Your task to perform on an android device: open sync settings in chrome Image 0: 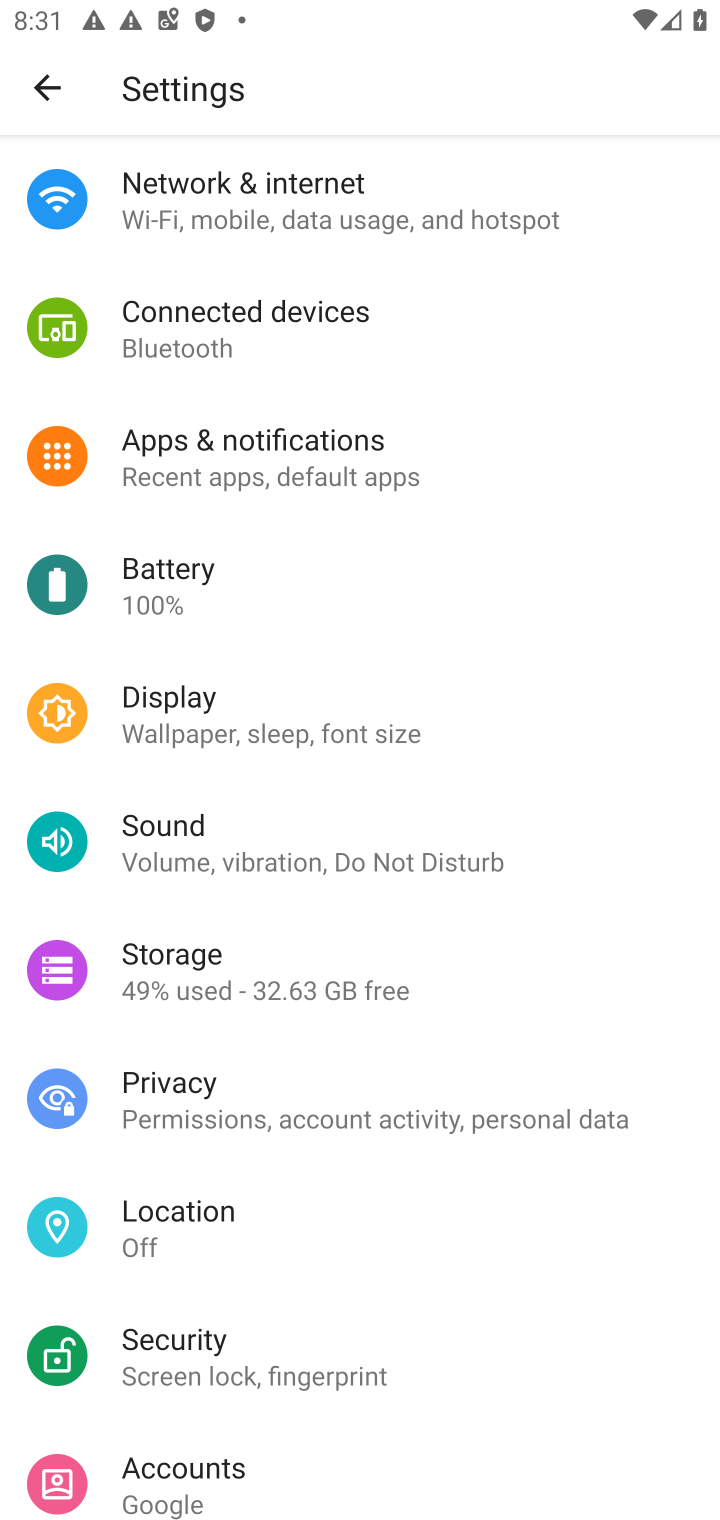
Step 0: press home button
Your task to perform on an android device: open sync settings in chrome Image 1: 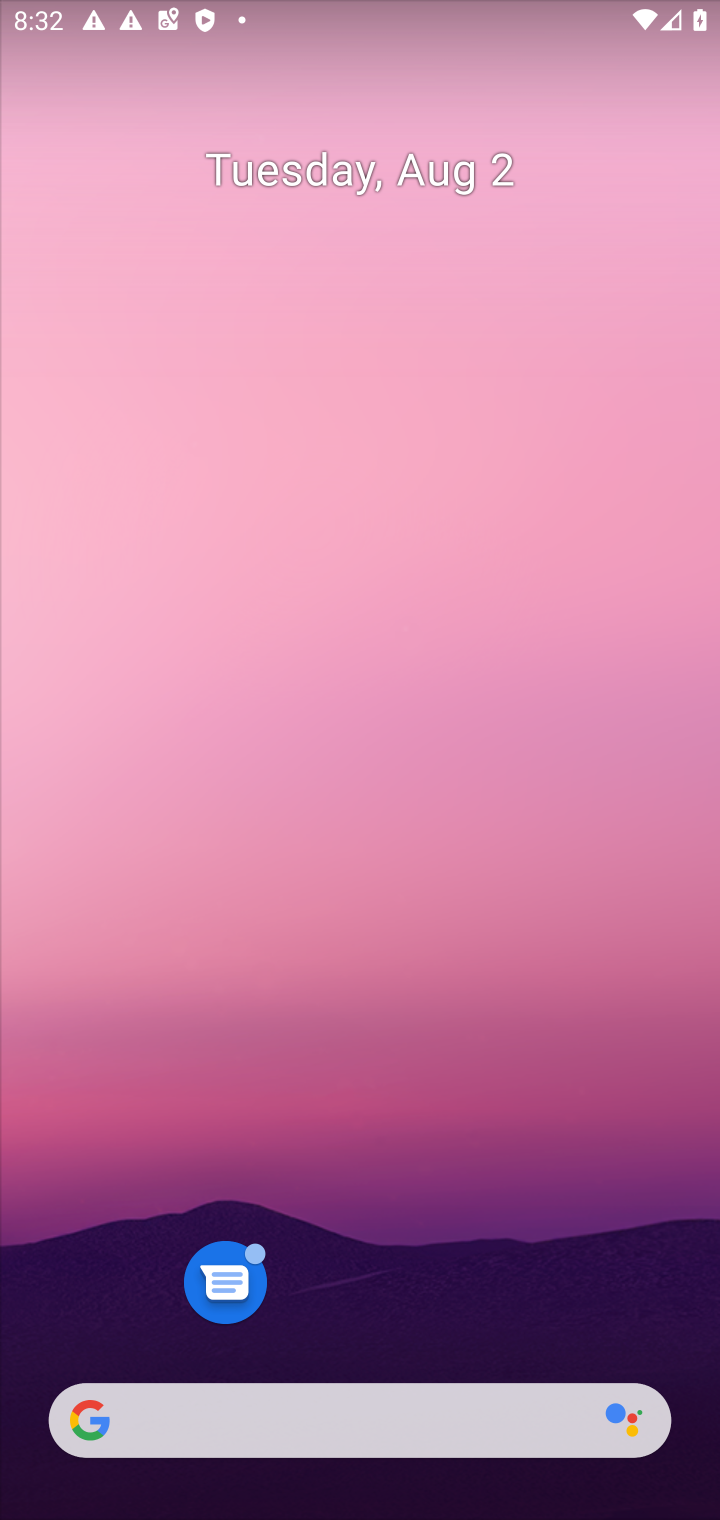
Step 1: drag from (418, 1315) to (412, 1)
Your task to perform on an android device: open sync settings in chrome Image 2: 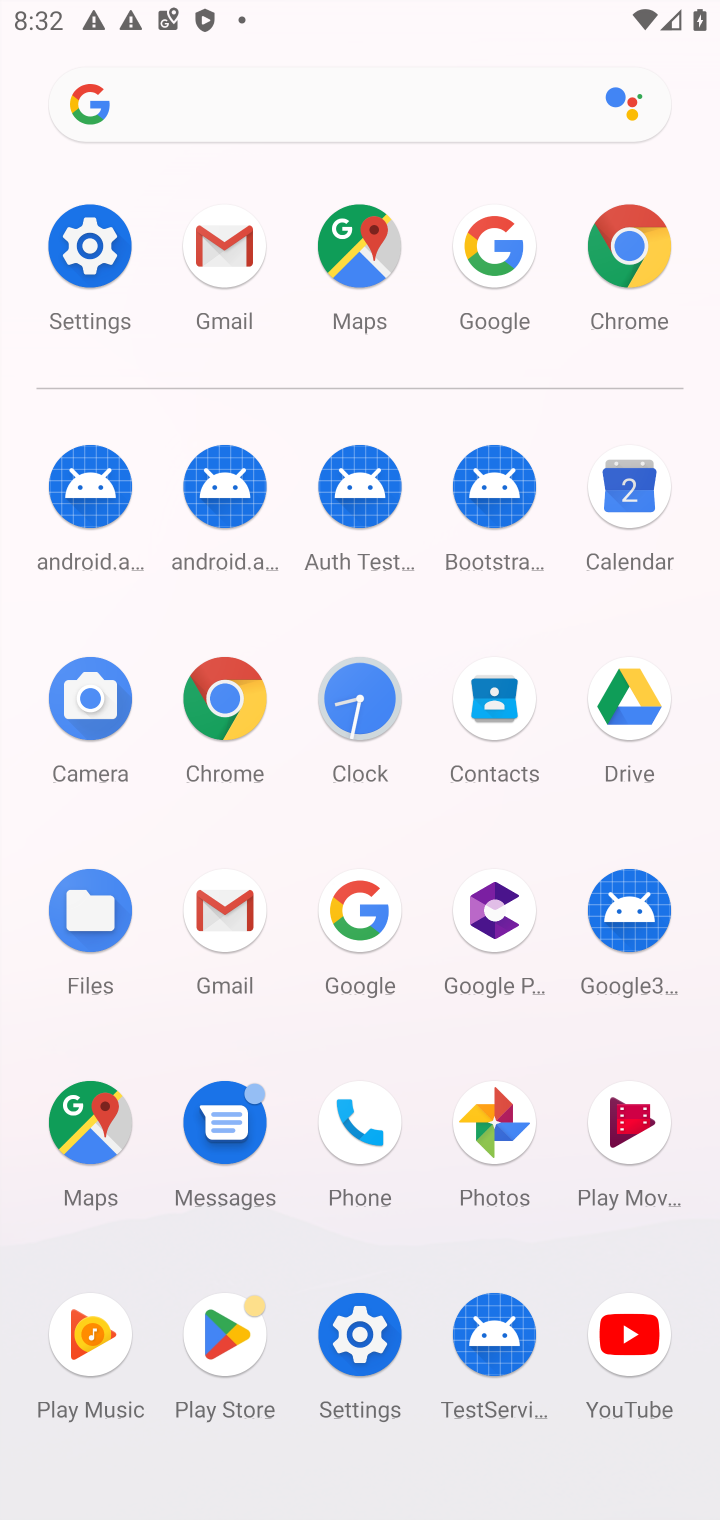
Step 2: click (249, 744)
Your task to perform on an android device: open sync settings in chrome Image 3: 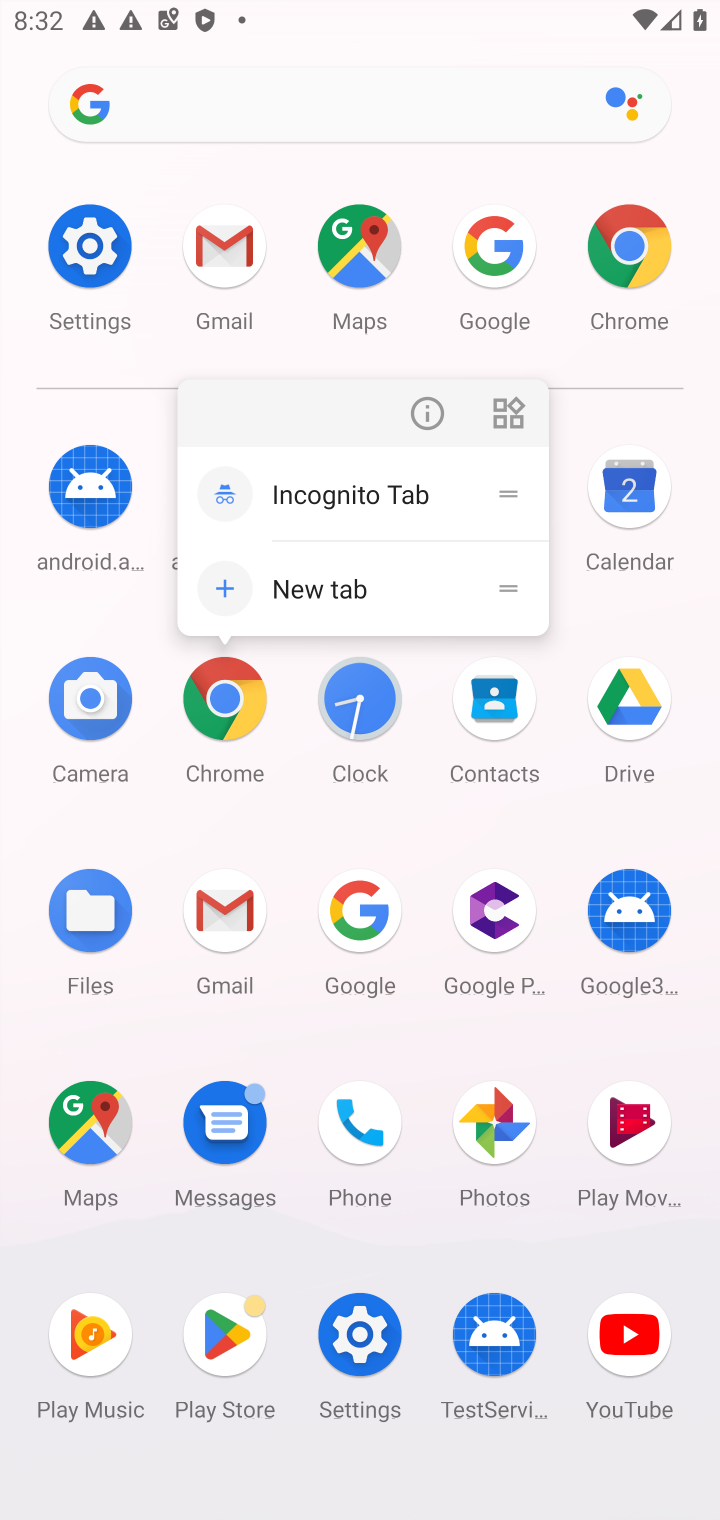
Step 3: click (243, 711)
Your task to perform on an android device: open sync settings in chrome Image 4: 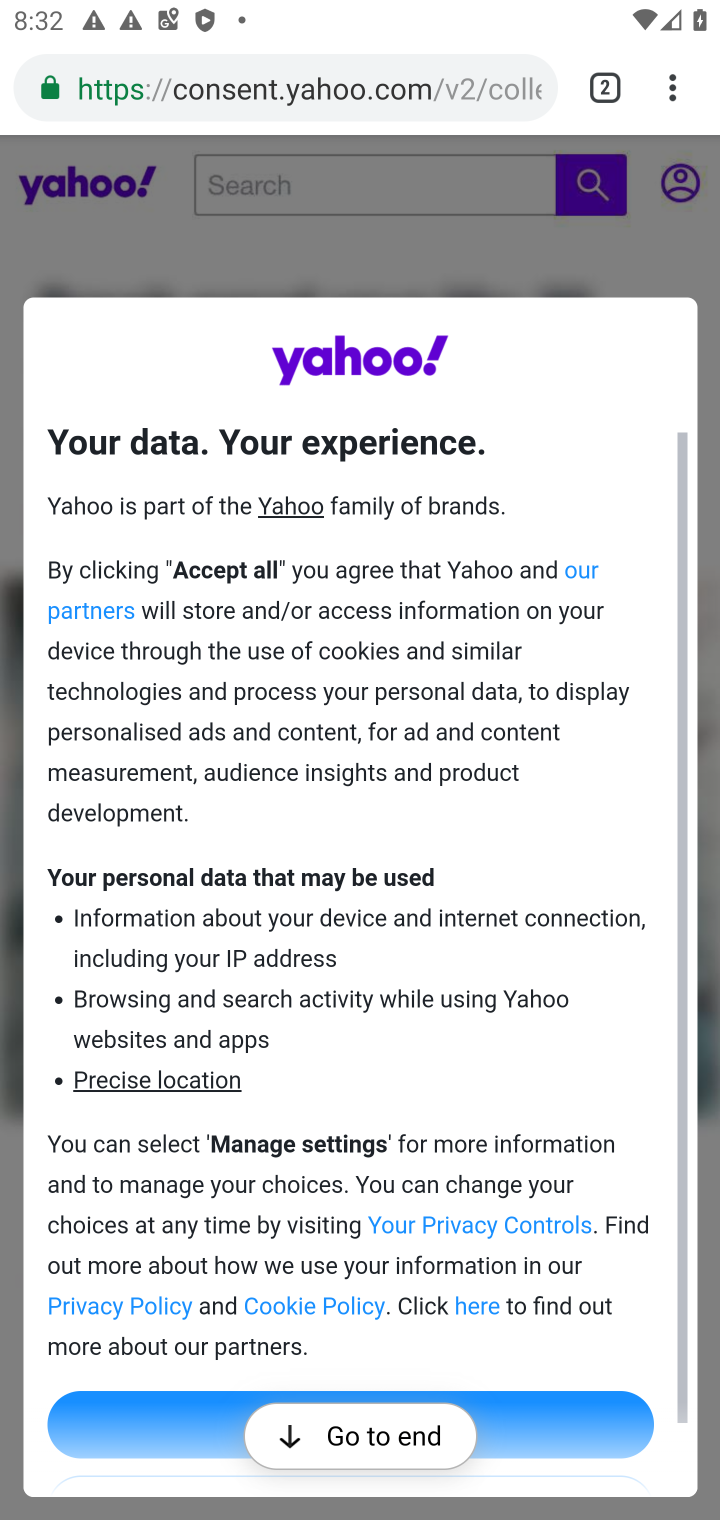
Step 4: drag from (664, 72) to (337, 1048)
Your task to perform on an android device: open sync settings in chrome Image 5: 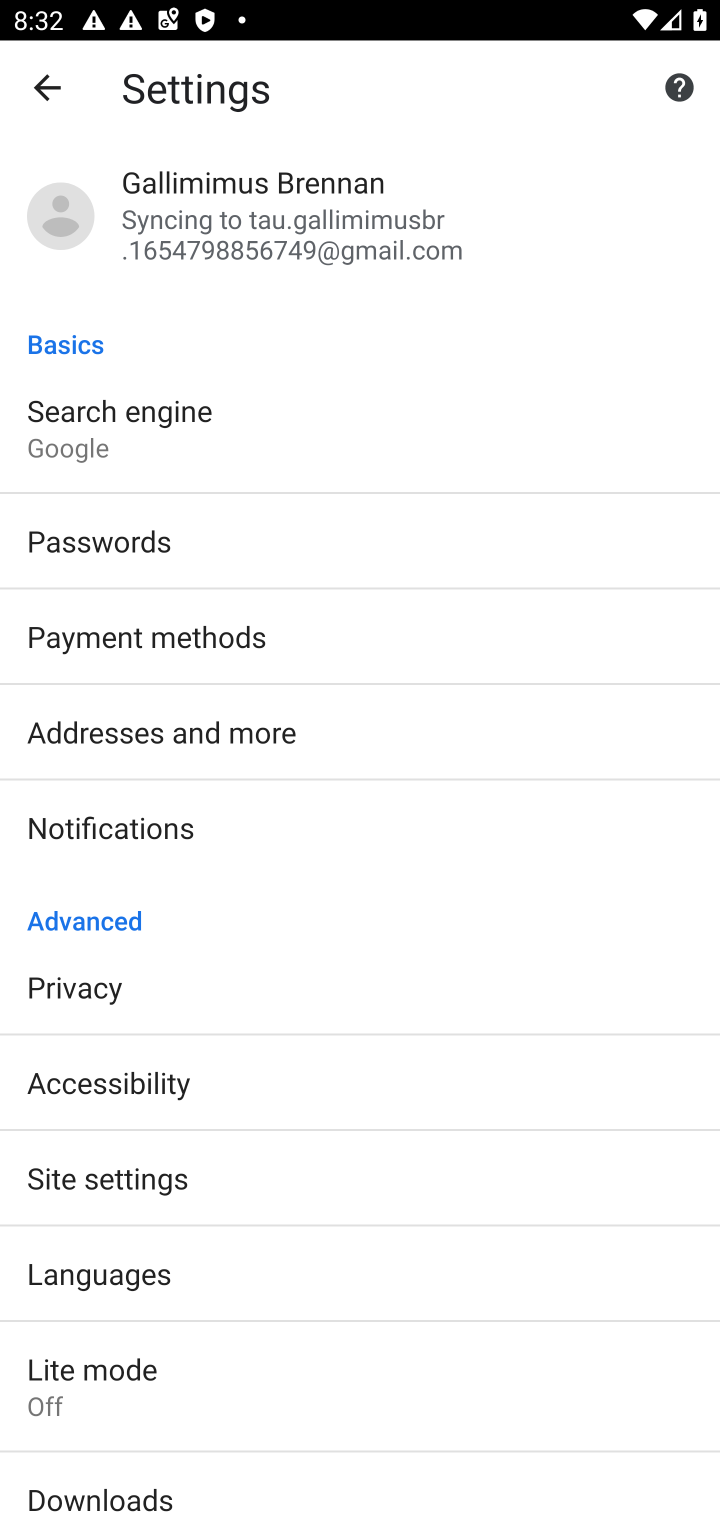
Step 5: click (91, 226)
Your task to perform on an android device: open sync settings in chrome Image 6: 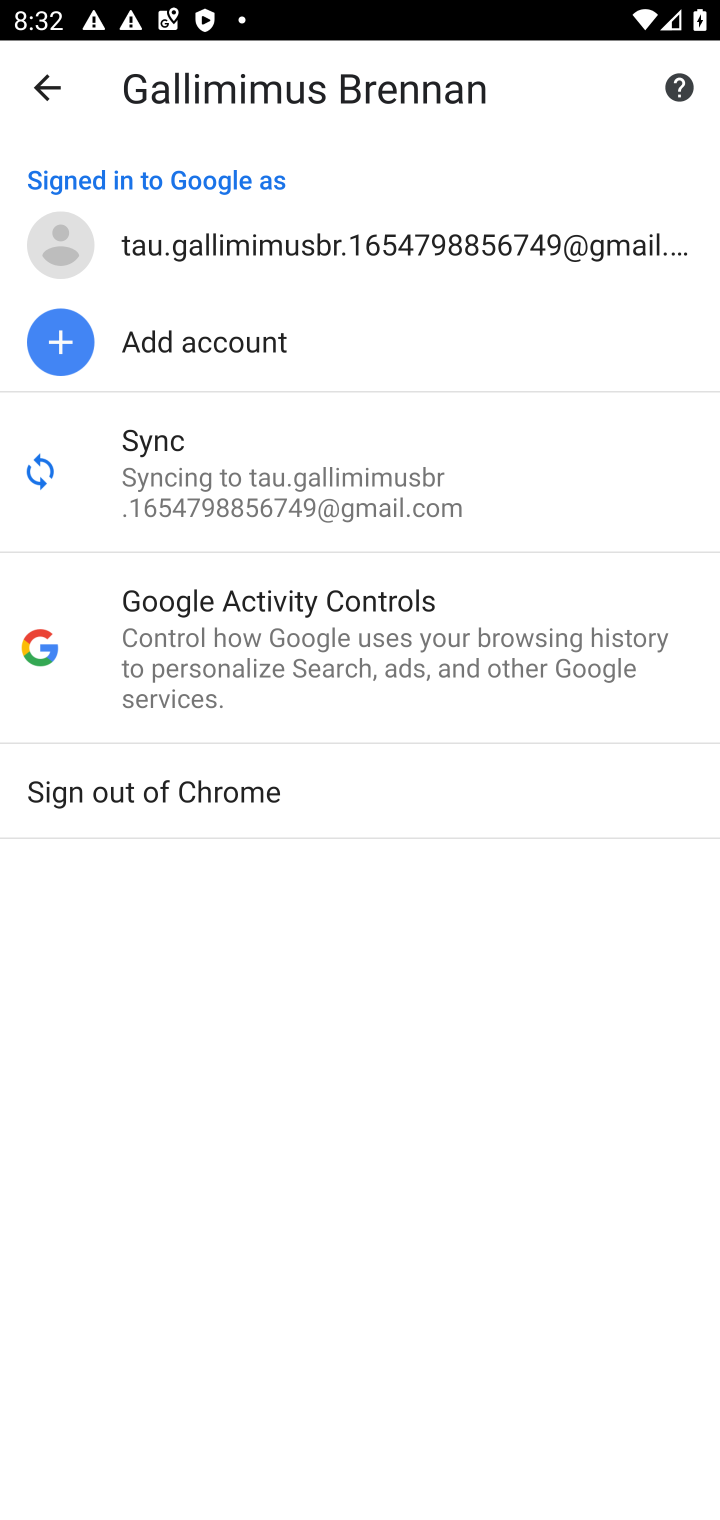
Step 6: click (212, 459)
Your task to perform on an android device: open sync settings in chrome Image 7: 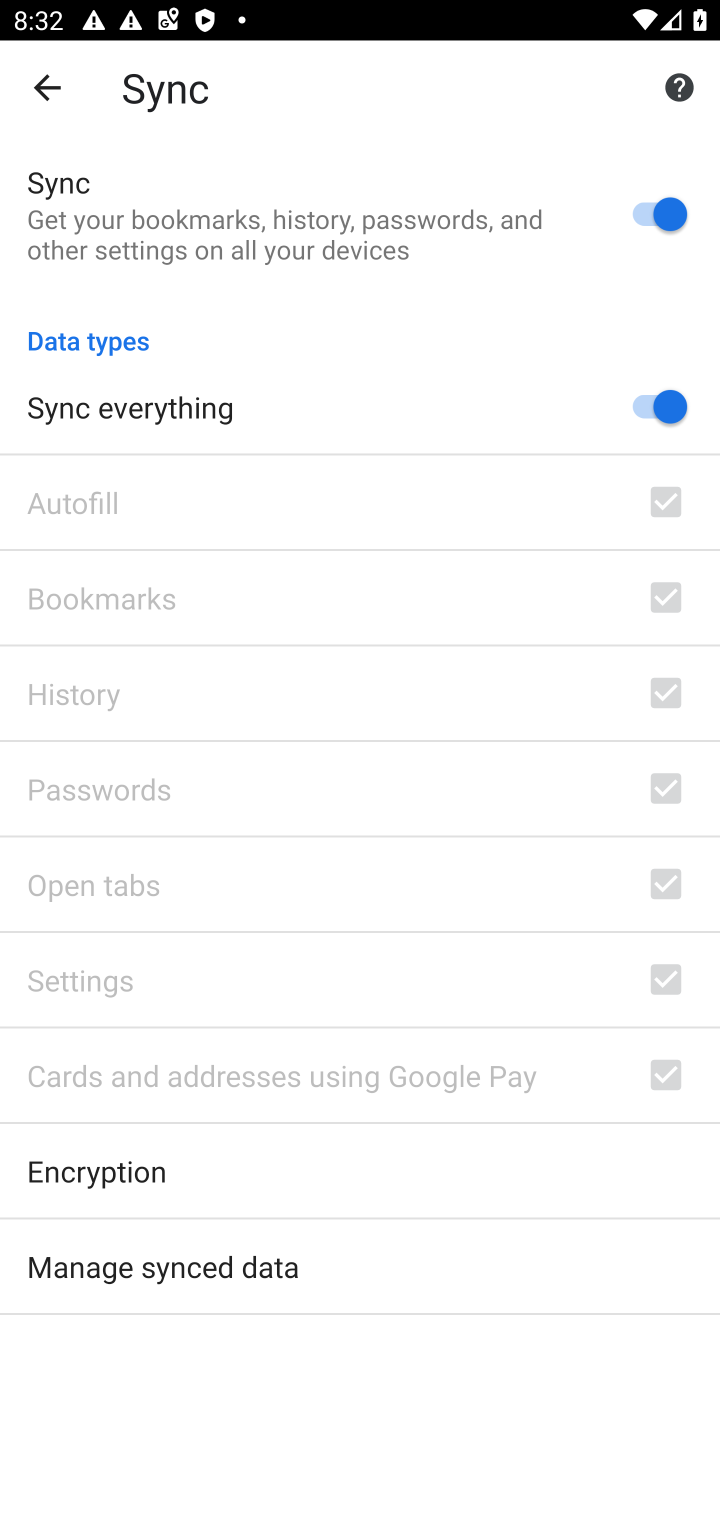
Step 7: task complete